Your task to perform on an android device: see tabs open on other devices in the chrome app Image 0: 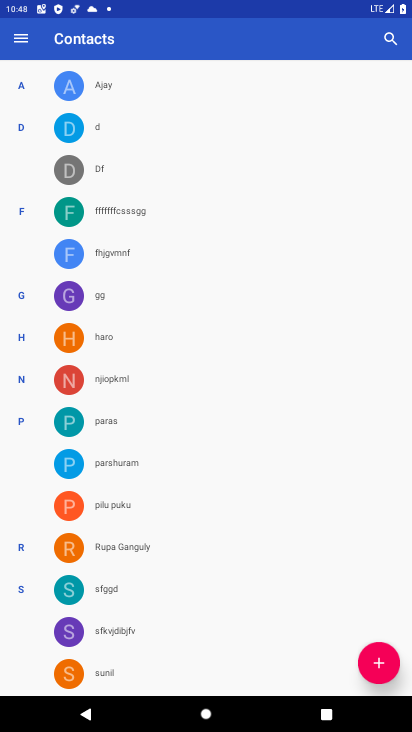
Step 0: press home button
Your task to perform on an android device: see tabs open on other devices in the chrome app Image 1: 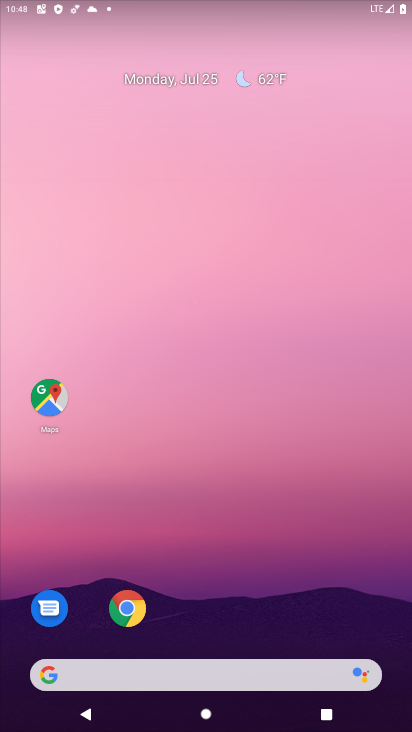
Step 1: click (120, 599)
Your task to perform on an android device: see tabs open on other devices in the chrome app Image 2: 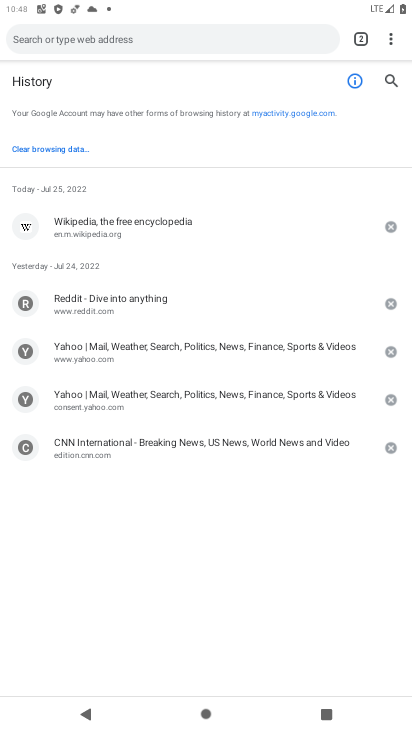
Step 2: click (391, 37)
Your task to perform on an android device: see tabs open on other devices in the chrome app Image 3: 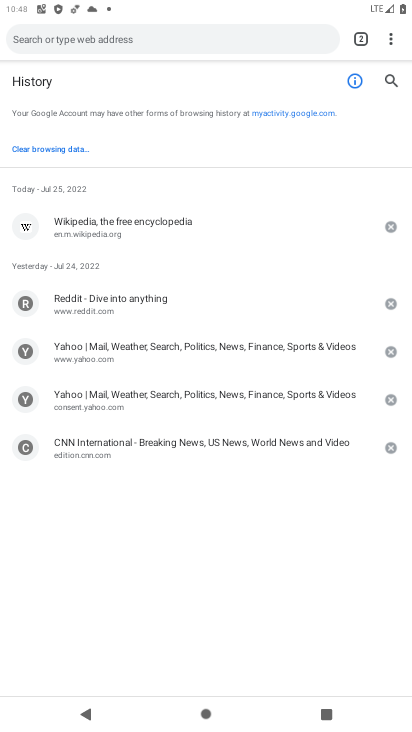
Step 3: click (391, 32)
Your task to perform on an android device: see tabs open on other devices in the chrome app Image 4: 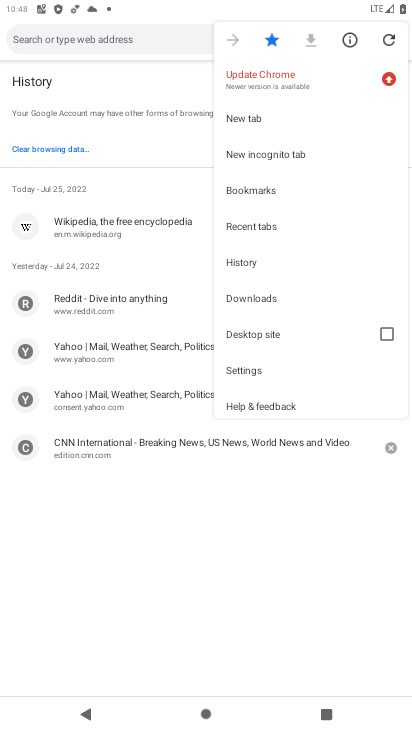
Step 4: click (255, 220)
Your task to perform on an android device: see tabs open on other devices in the chrome app Image 5: 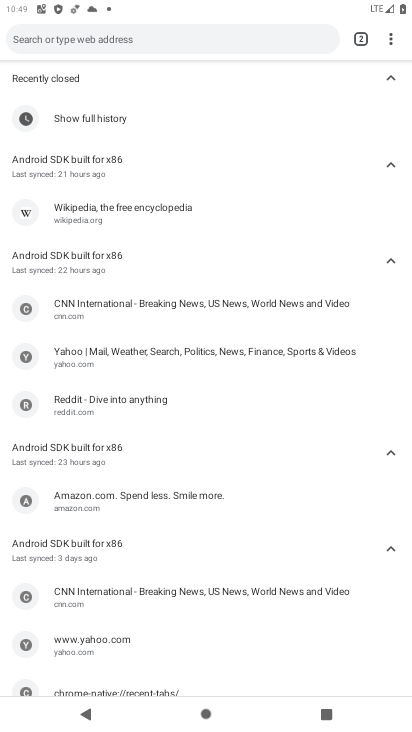
Step 5: task complete